Your task to perform on an android device: change alarm snooze length Image 0: 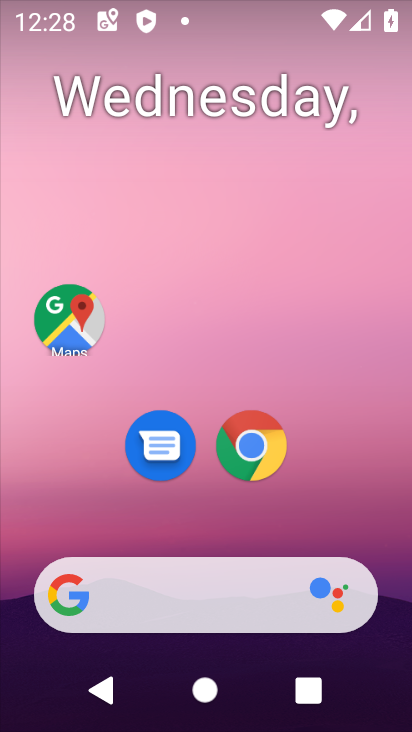
Step 0: drag from (348, 498) to (150, 85)
Your task to perform on an android device: change alarm snooze length Image 1: 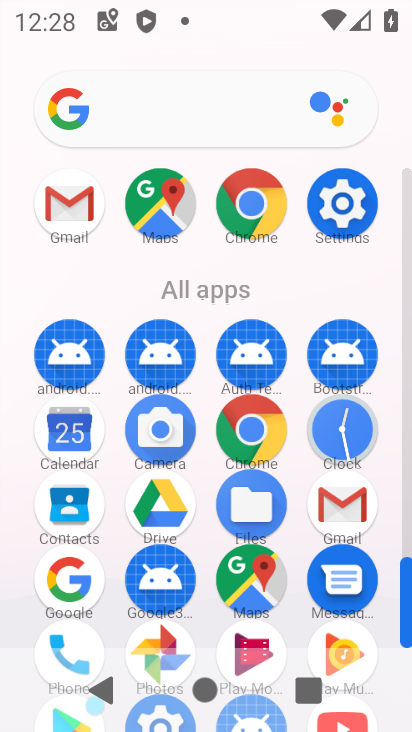
Step 1: click (348, 423)
Your task to perform on an android device: change alarm snooze length Image 2: 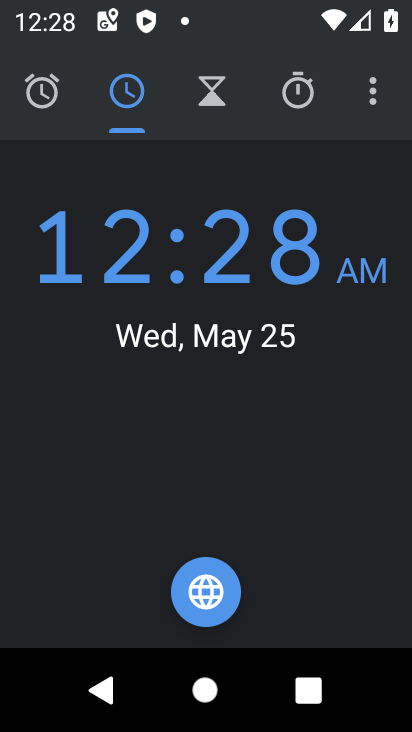
Step 2: click (362, 85)
Your task to perform on an android device: change alarm snooze length Image 3: 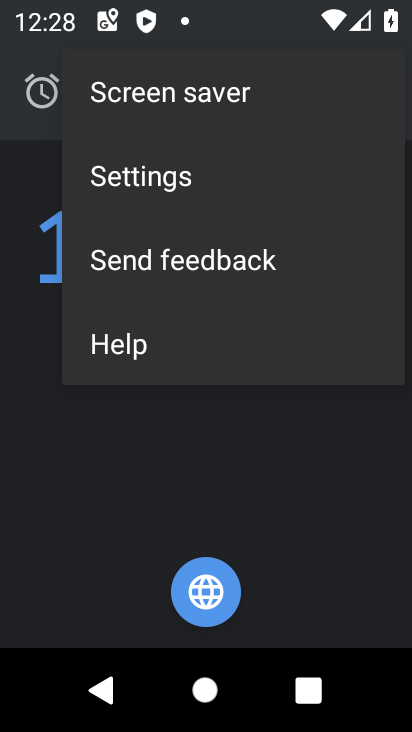
Step 3: click (154, 187)
Your task to perform on an android device: change alarm snooze length Image 4: 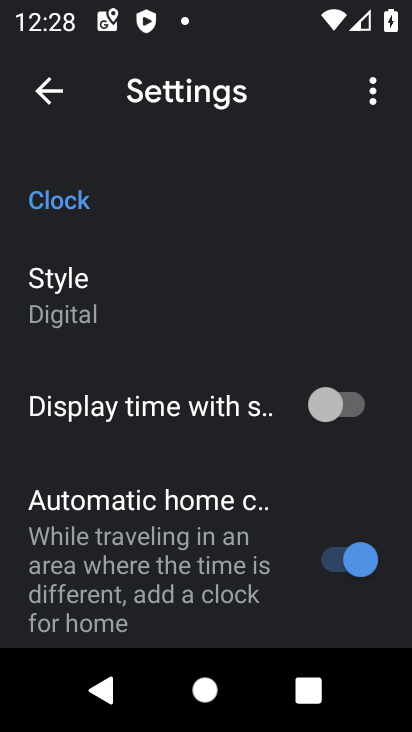
Step 4: drag from (161, 526) to (218, 195)
Your task to perform on an android device: change alarm snooze length Image 5: 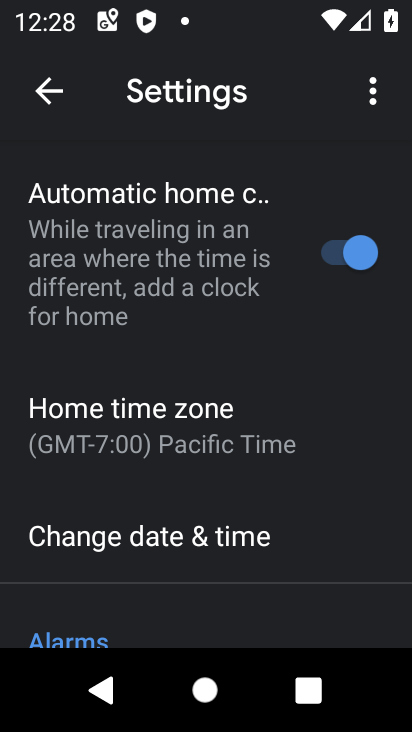
Step 5: drag from (210, 513) to (200, 192)
Your task to perform on an android device: change alarm snooze length Image 6: 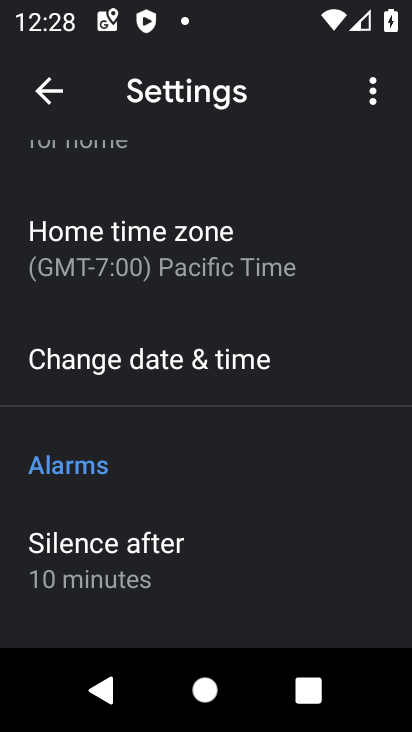
Step 6: drag from (102, 504) to (135, 252)
Your task to perform on an android device: change alarm snooze length Image 7: 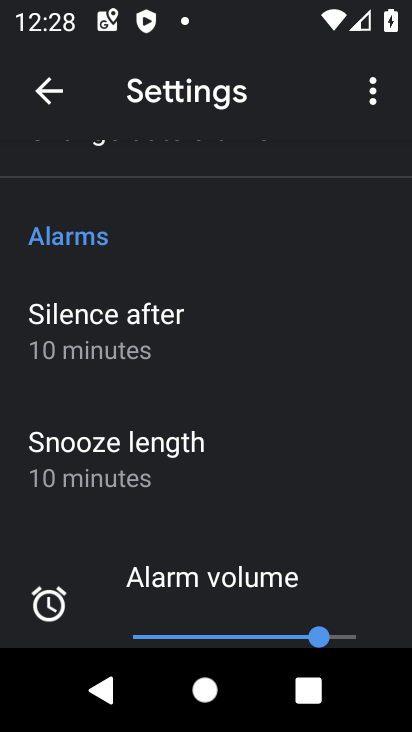
Step 7: click (126, 448)
Your task to perform on an android device: change alarm snooze length Image 8: 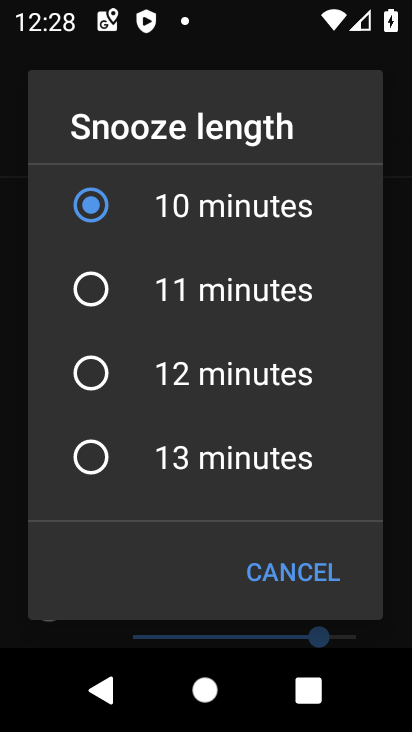
Step 8: click (210, 279)
Your task to perform on an android device: change alarm snooze length Image 9: 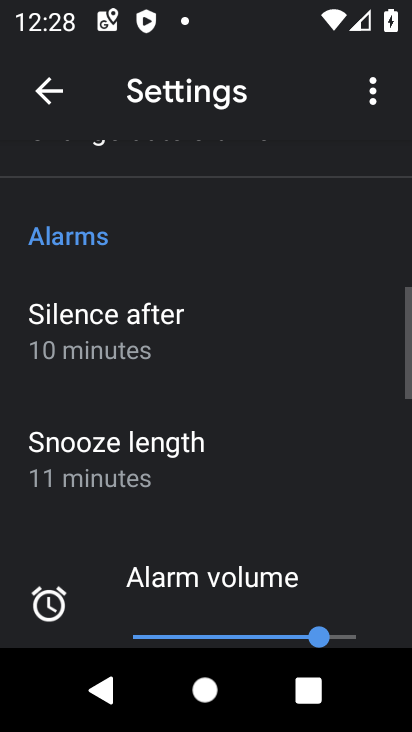
Step 9: task complete